Your task to perform on an android device: turn off translation in the chrome app Image 0: 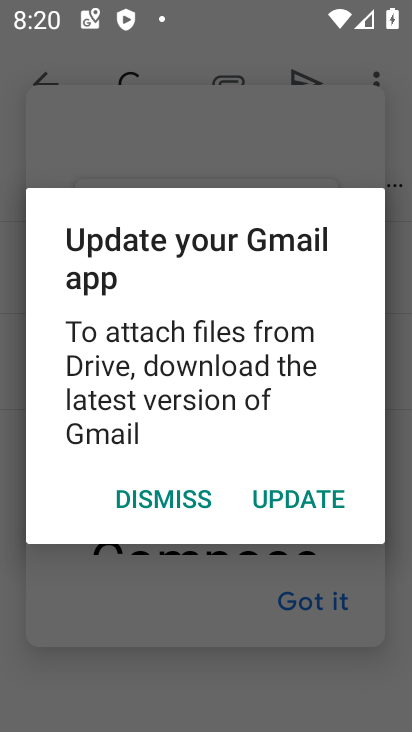
Step 0: press home button
Your task to perform on an android device: turn off translation in the chrome app Image 1: 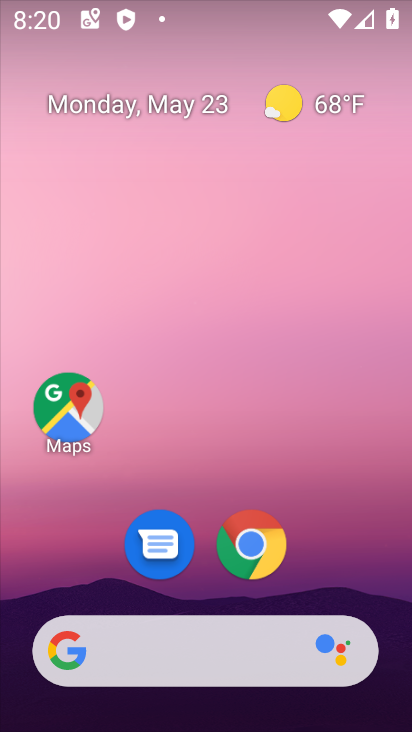
Step 1: click (245, 549)
Your task to perform on an android device: turn off translation in the chrome app Image 2: 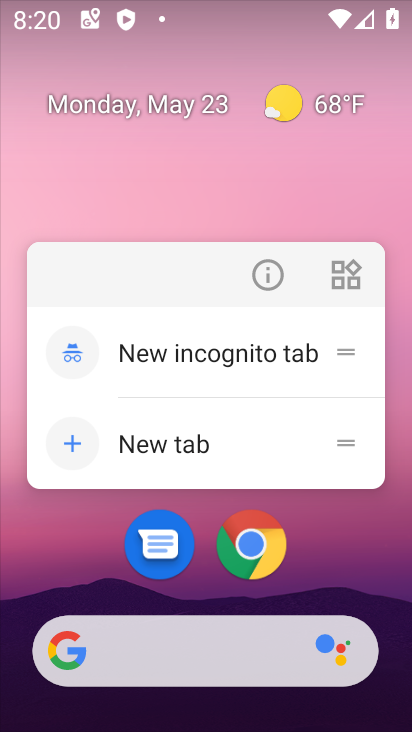
Step 2: click (250, 549)
Your task to perform on an android device: turn off translation in the chrome app Image 3: 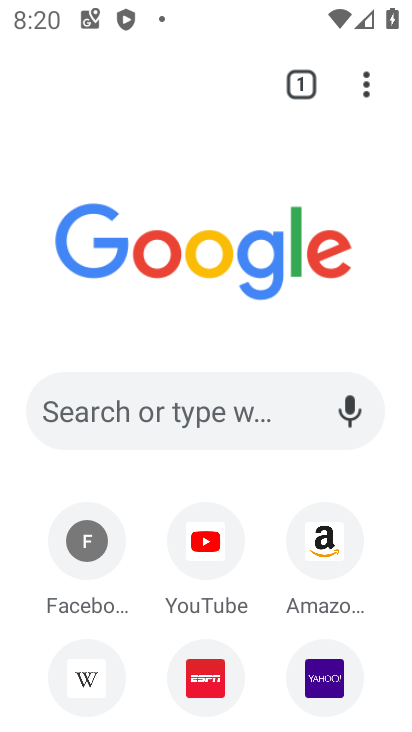
Step 3: click (355, 91)
Your task to perform on an android device: turn off translation in the chrome app Image 4: 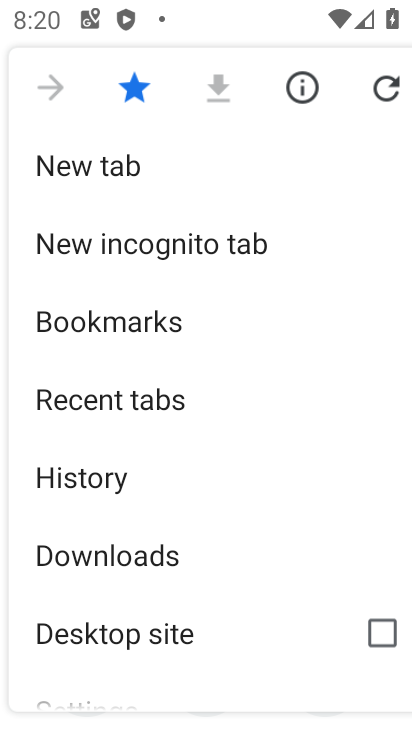
Step 4: drag from (222, 582) to (251, 155)
Your task to perform on an android device: turn off translation in the chrome app Image 5: 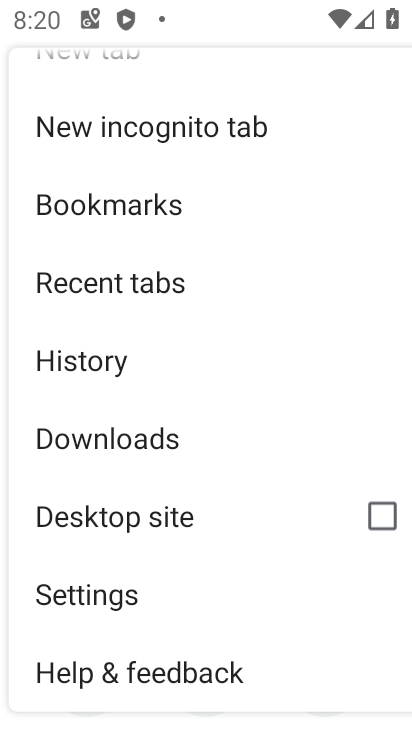
Step 5: click (58, 591)
Your task to perform on an android device: turn off translation in the chrome app Image 6: 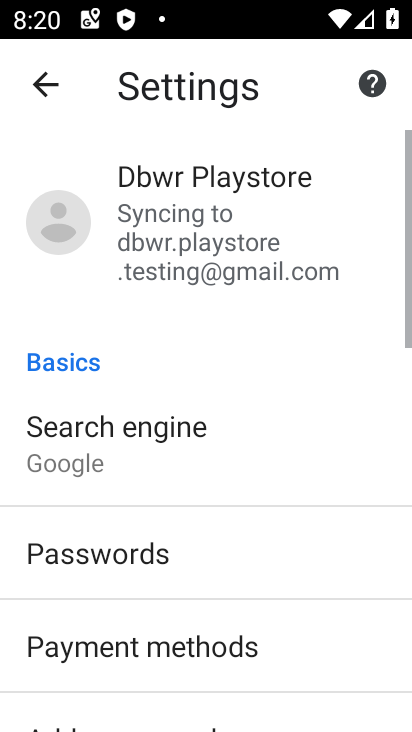
Step 6: drag from (246, 618) to (227, 134)
Your task to perform on an android device: turn off translation in the chrome app Image 7: 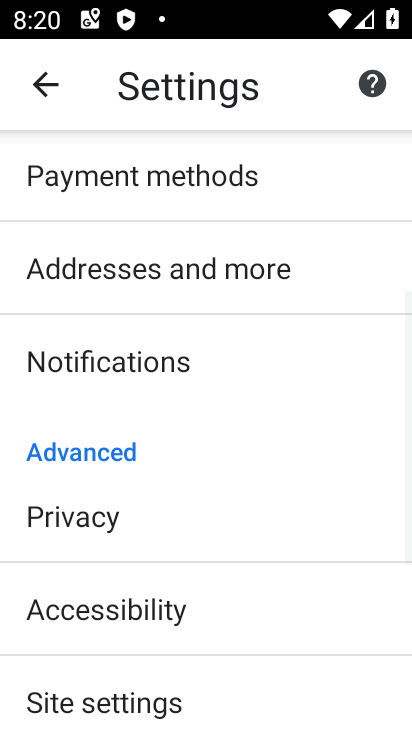
Step 7: drag from (250, 675) to (207, 264)
Your task to perform on an android device: turn off translation in the chrome app Image 8: 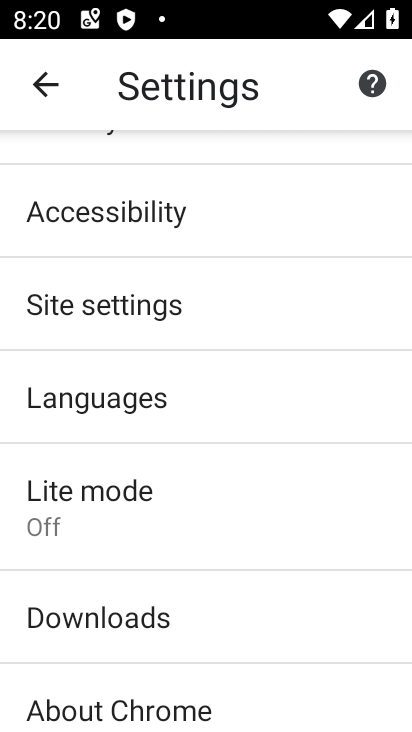
Step 8: click (121, 401)
Your task to perform on an android device: turn off translation in the chrome app Image 9: 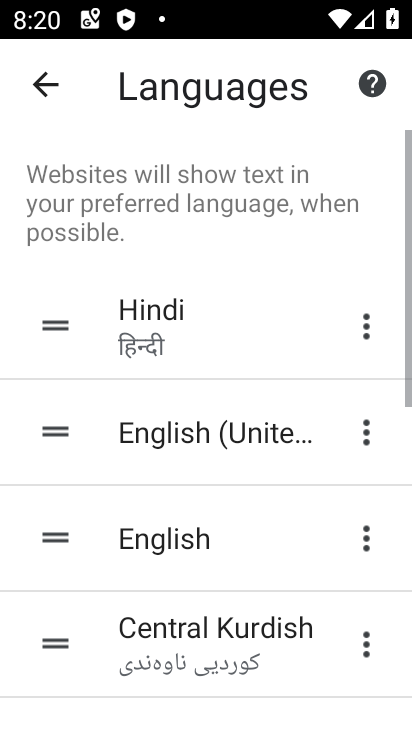
Step 9: drag from (332, 603) to (355, 142)
Your task to perform on an android device: turn off translation in the chrome app Image 10: 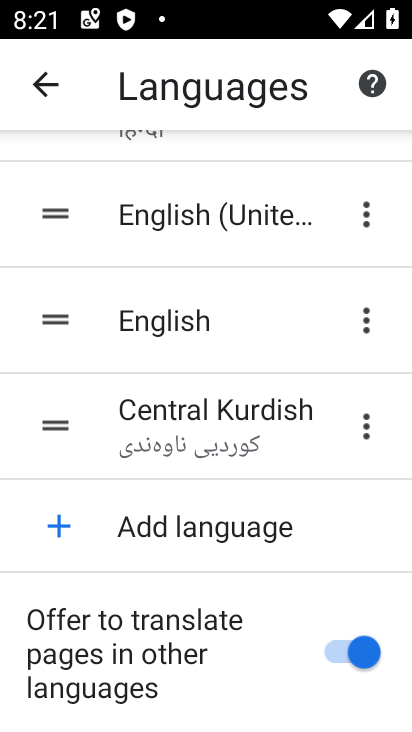
Step 10: click (359, 669)
Your task to perform on an android device: turn off translation in the chrome app Image 11: 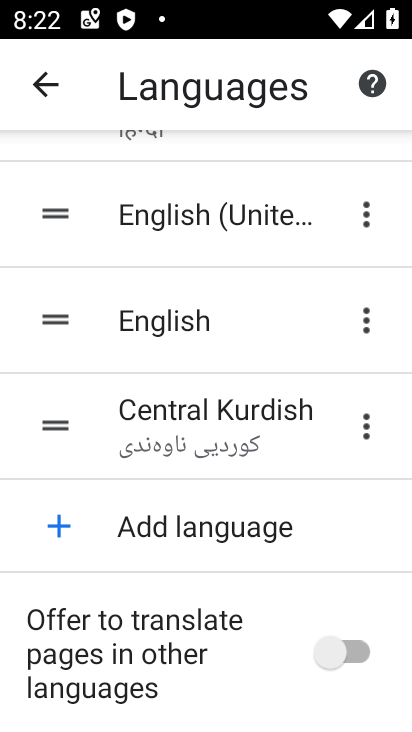
Step 11: task complete